Your task to perform on an android device: Go to network settings Image 0: 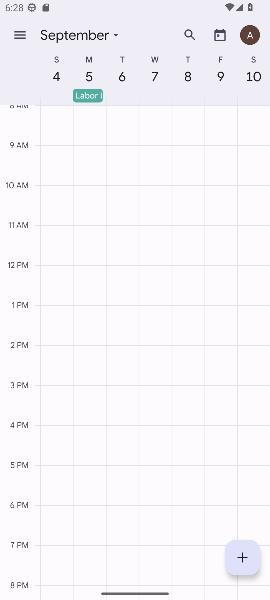
Step 0: press home button
Your task to perform on an android device: Go to network settings Image 1: 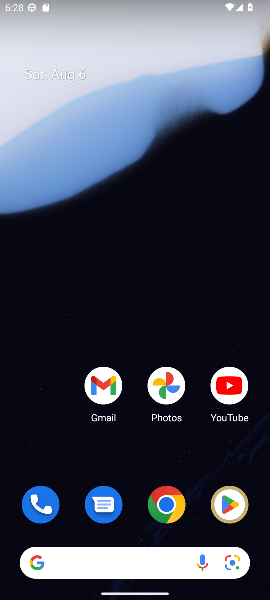
Step 1: drag from (85, 558) to (167, 264)
Your task to perform on an android device: Go to network settings Image 2: 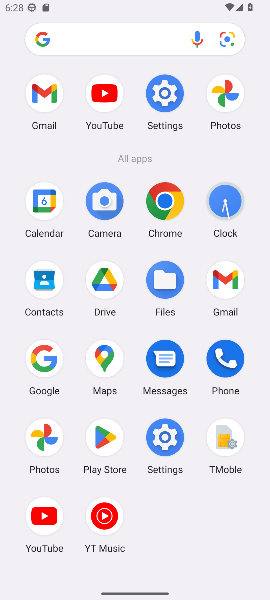
Step 2: click (164, 94)
Your task to perform on an android device: Go to network settings Image 3: 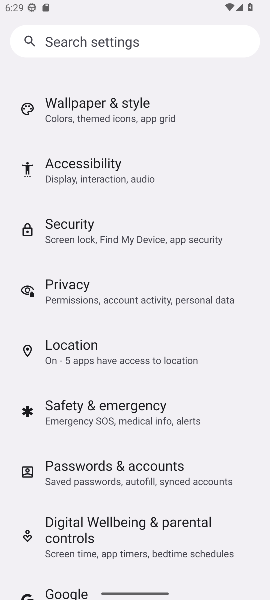
Step 3: drag from (164, 94) to (147, 220)
Your task to perform on an android device: Go to network settings Image 4: 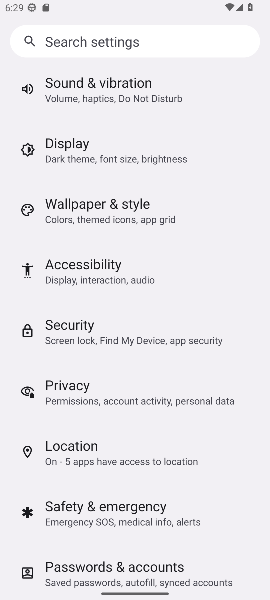
Step 4: drag from (156, 131) to (179, 278)
Your task to perform on an android device: Go to network settings Image 5: 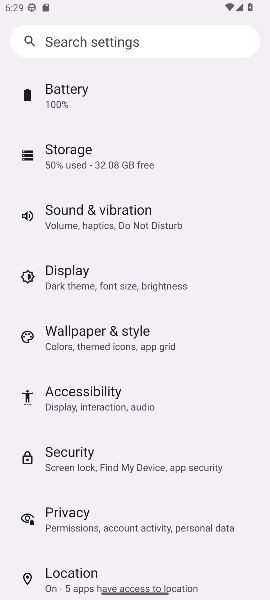
Step 5: drag from (146, 127) to (159, 274)
Your task to perform on an android device: Go to network settings Image 6: 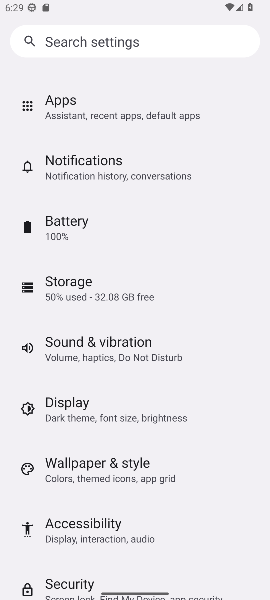
Step 6: drag from (165, 84) to (168, 261)
Your task to perform on an android device: Go to network settings Image 7: 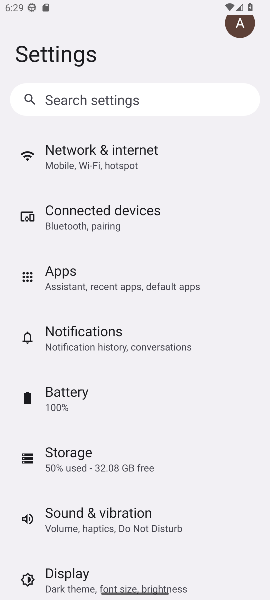
Step 7: click (133, 166)
Your task to perform on an android device: Go to network settings Image 8: 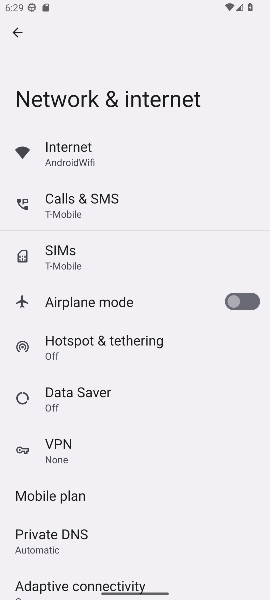
Step 8: task complete